Your task to perform on an android device: manage bookmarks in the chrome app Image 0: 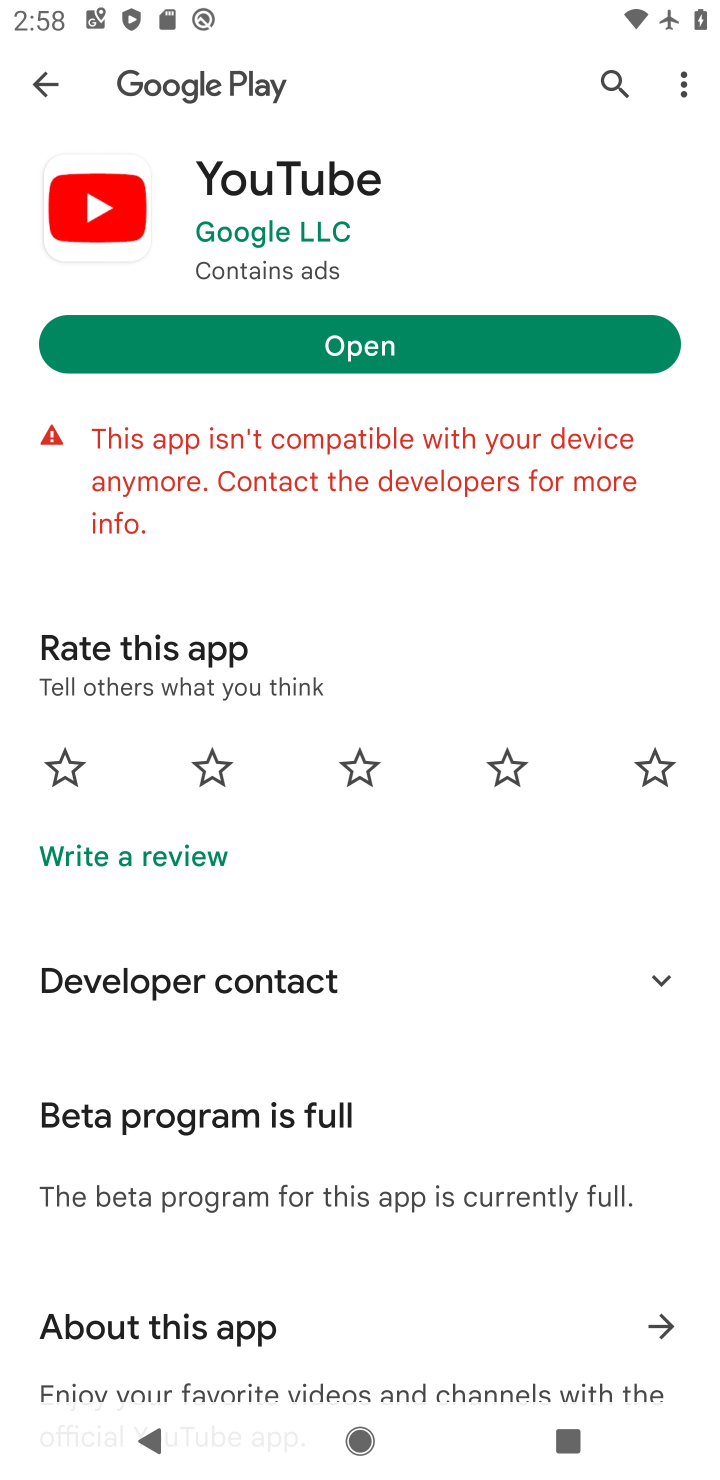
Step 0: press home button
Your task to perform on an android device: manage bookmarks in the chrome app Image 1: 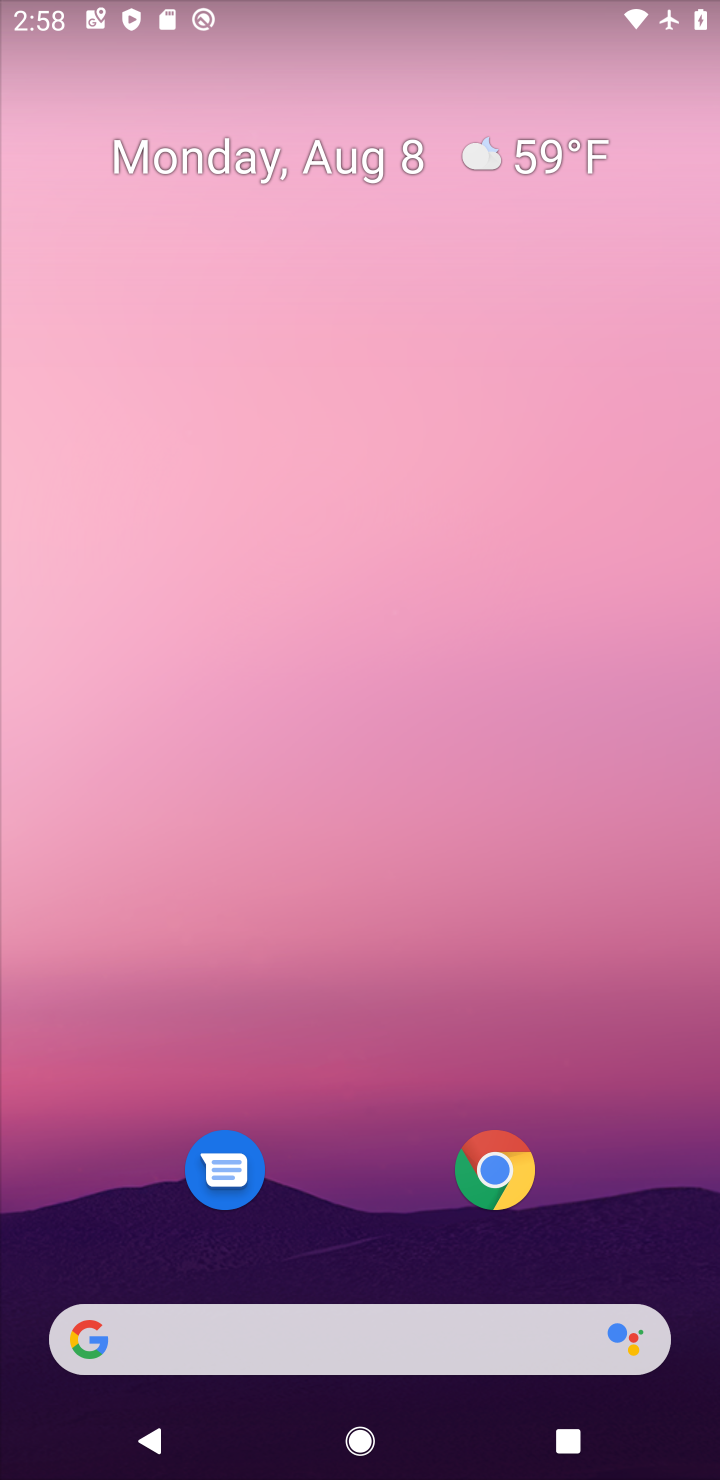
Step 1: click (505, 1179)
Your task to perform on an android device: manage bookmarks in the chrome app Image 2: 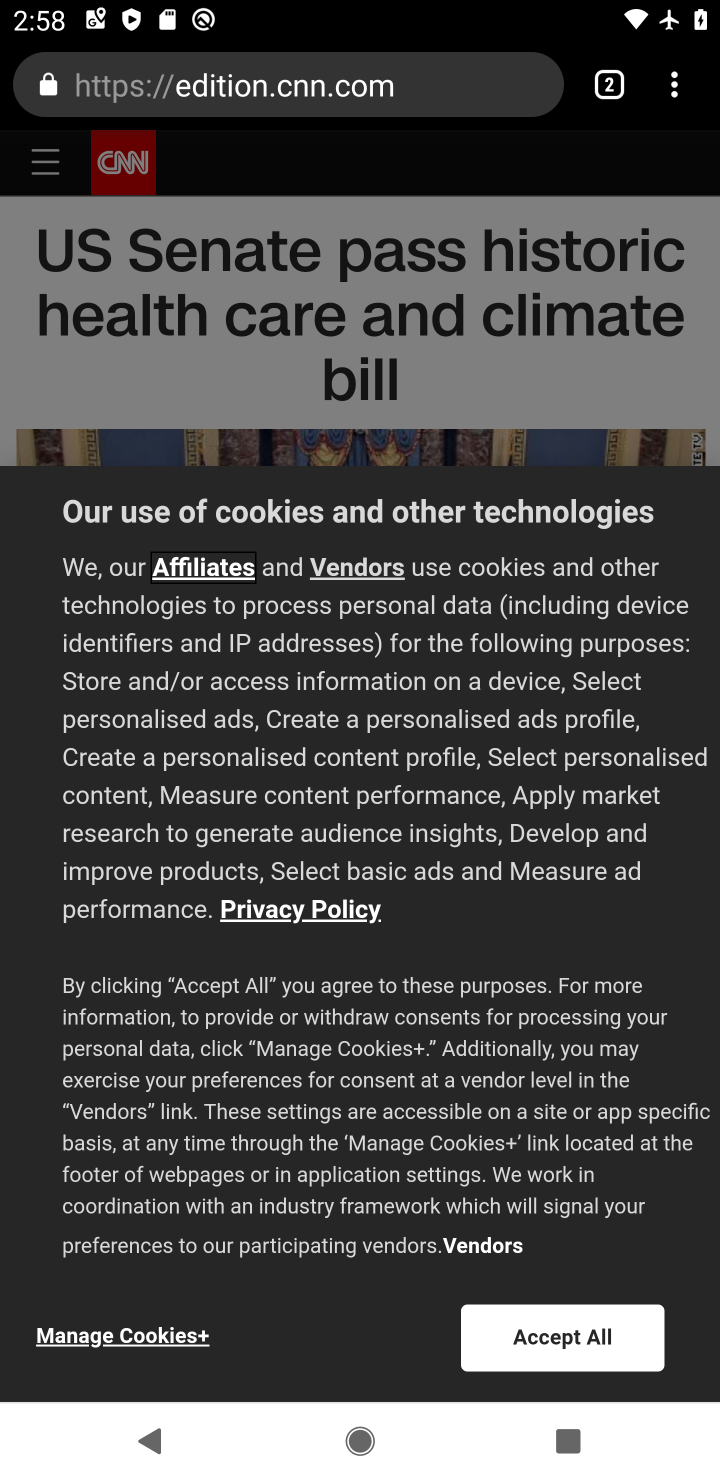
Step 2: click (670, 80)
Your task to perform on an android device: manage bookmarks in the chrome app Image 3: 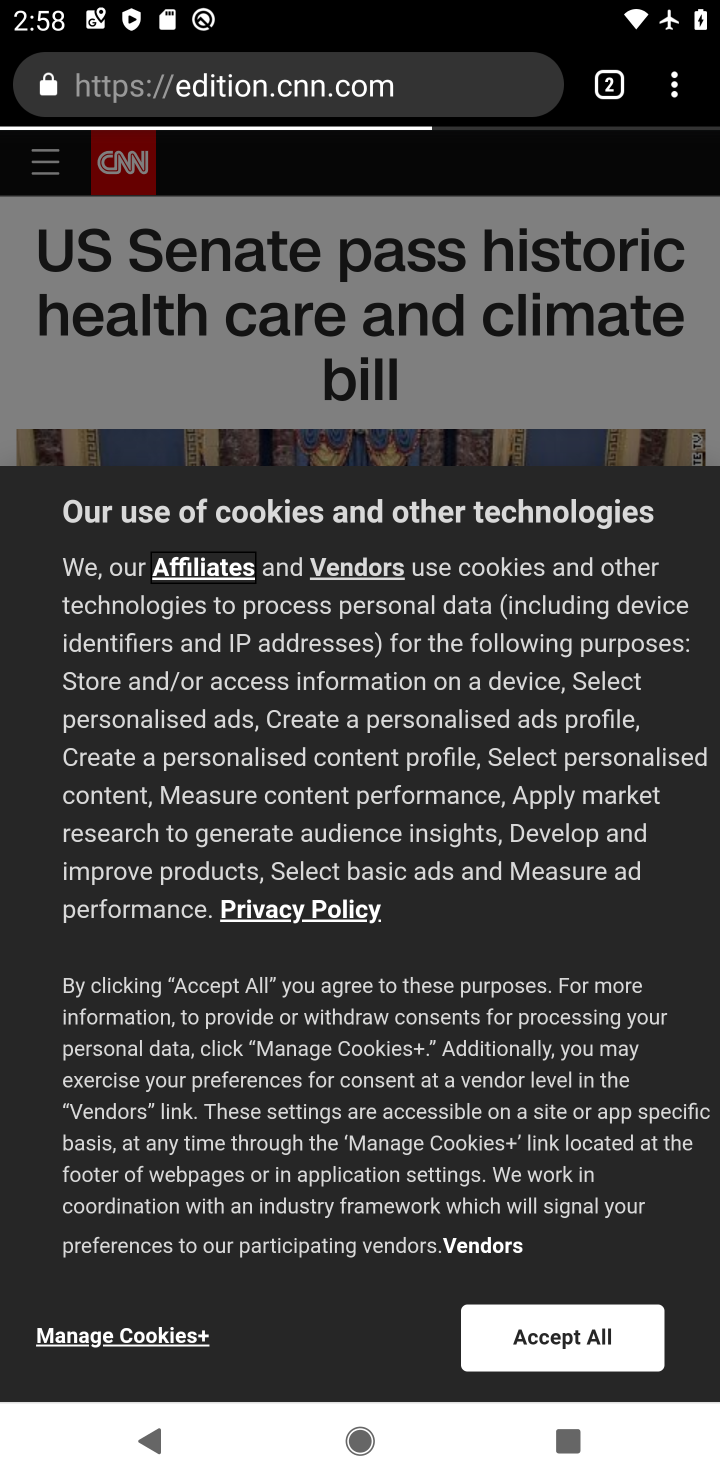
Step 3: click (671, 81)
Your task to perform on an android device: manage bookmarks in the chrome app Image 4: 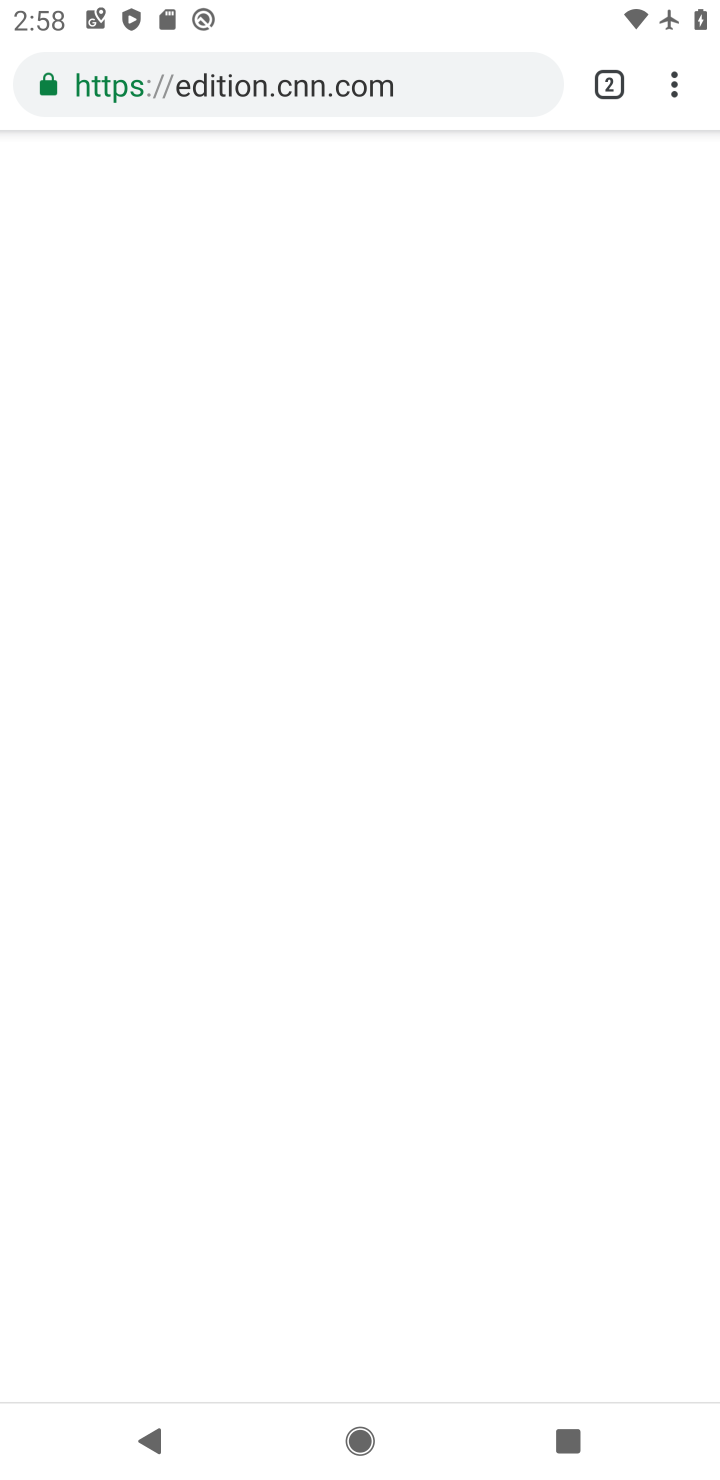
Step 4: drag from (666, 85) to (443, 330)
Your task to perform on an android device: manage bookmarks in the chrome app Image 5: 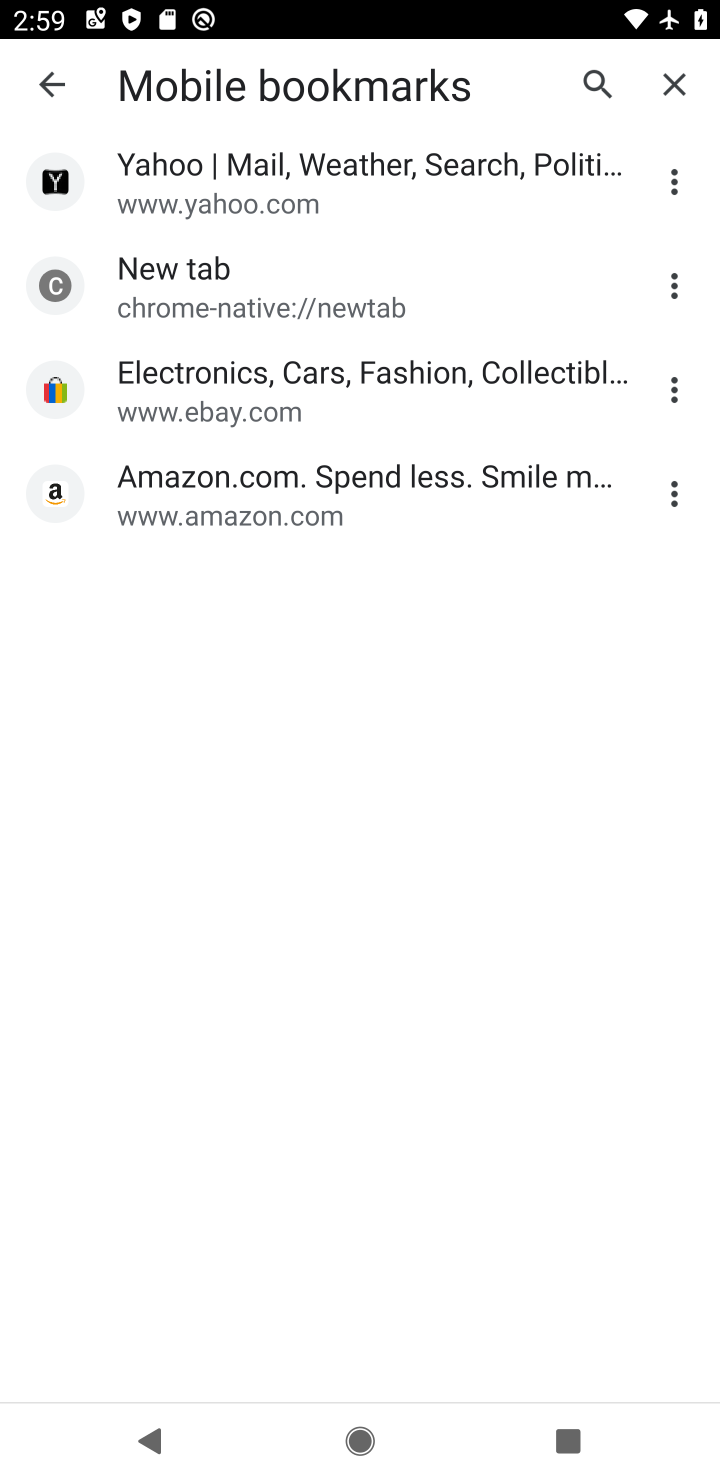
Step 5: click (670, 498)
Your task to perform on an android device: manage bookmarks in the chrome app Image 6: 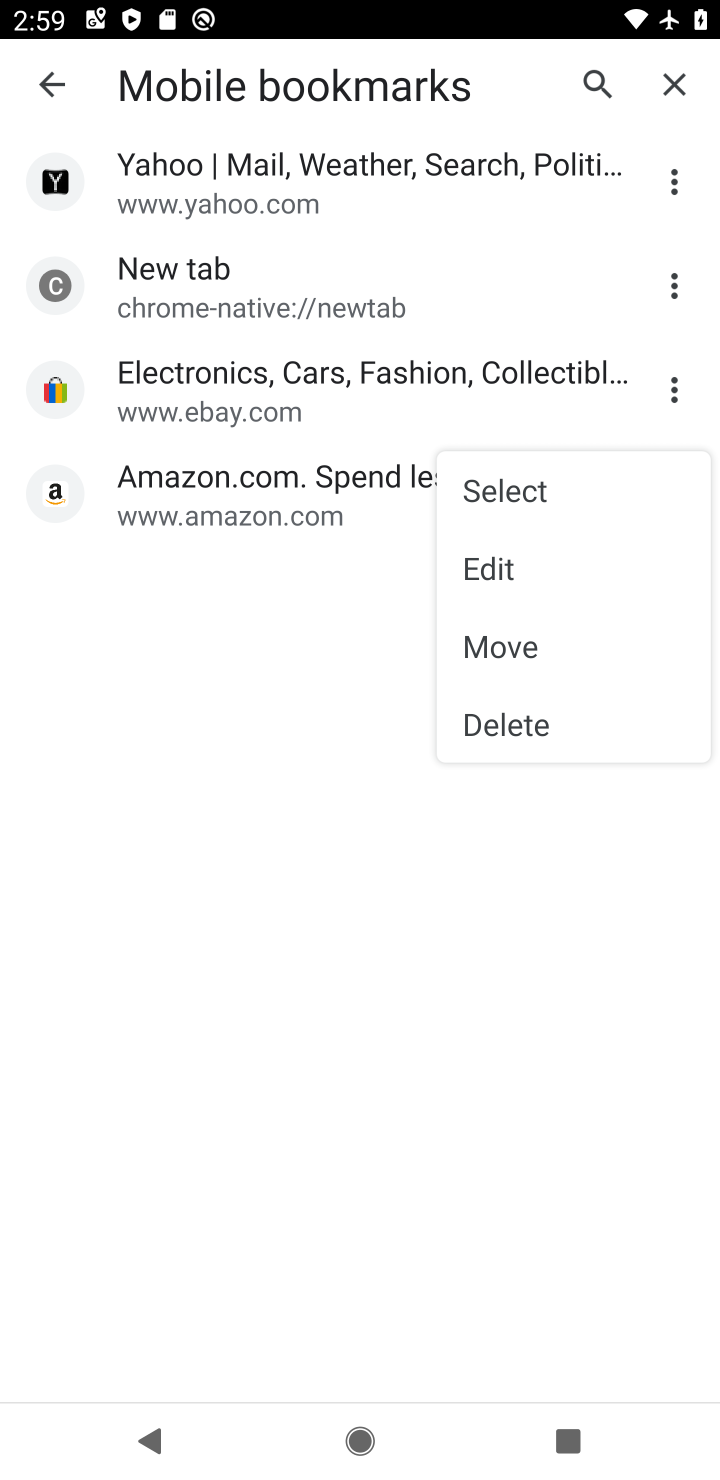
Step 6: click (535, 729)
Your task to perform on an android device: manage bookmarks in the chrome app Image 7: 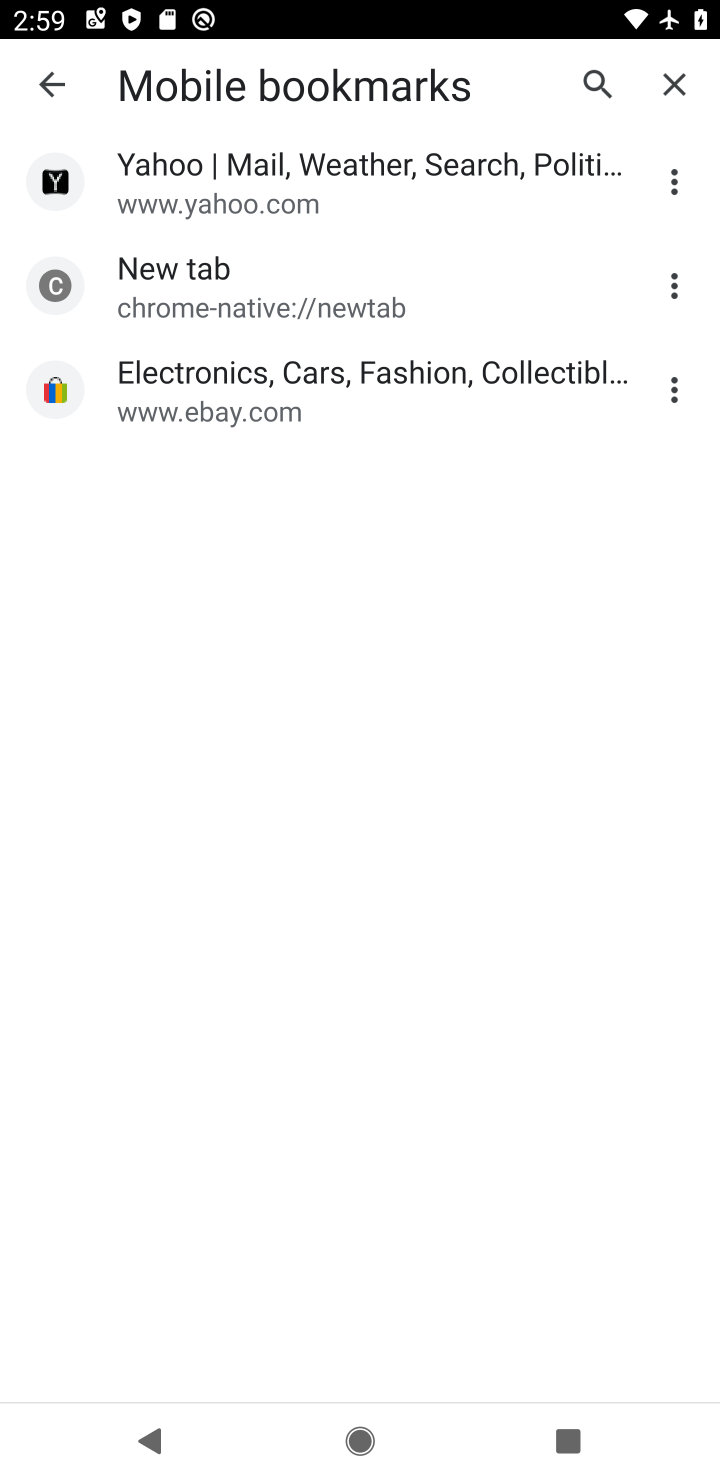
Step 7: task complete